Your task to perform on an android device: delete location history Image 0: 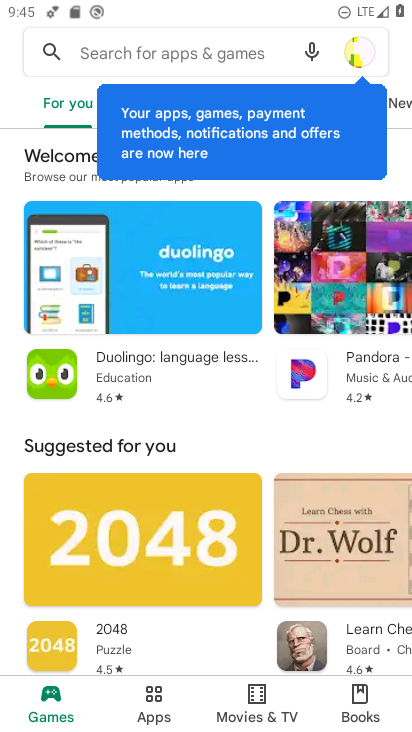
Step 0: press home button
Your task to perform on an android device: delete location history Image 1: 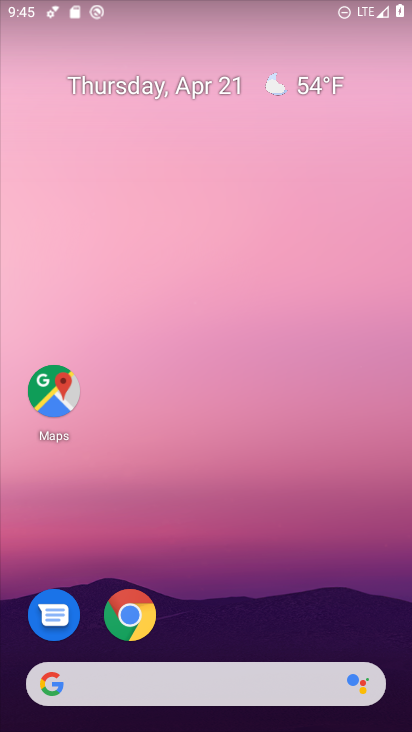
Step 1: click (55, 410)
Your task to perform on an android device: delete location history Image 2: 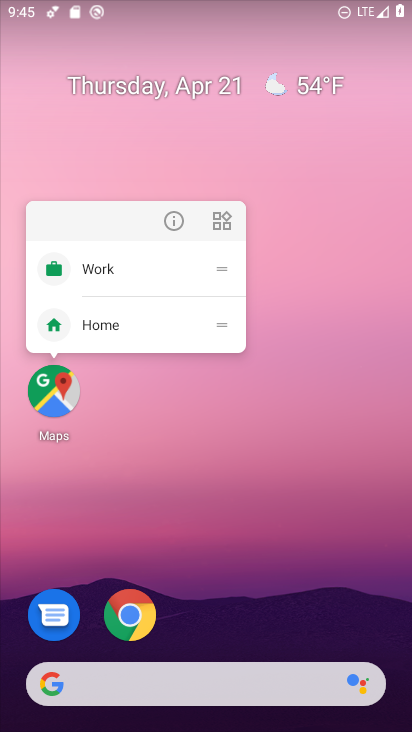
Step 2: click (58, 391)
Your task to perform on an android device: delete location history Image 3: 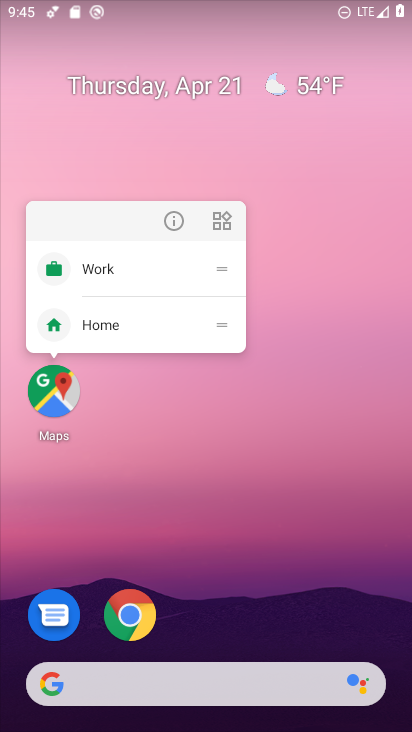
Step 3: click (60, 394)
Your task to perform on an android device: delete location history Image 4: 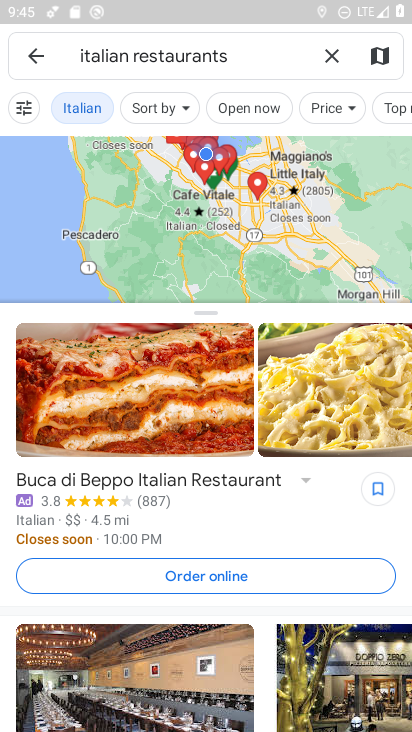
Step 4: click (39, 62)
Your task to perform on an android device: delete location history Image 5: 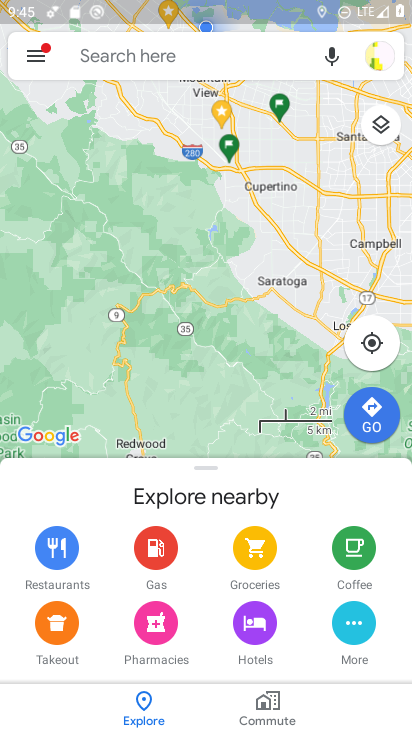
Step 5: click (27, 55)
Your task to perform on an android device: delete location history Image 6: 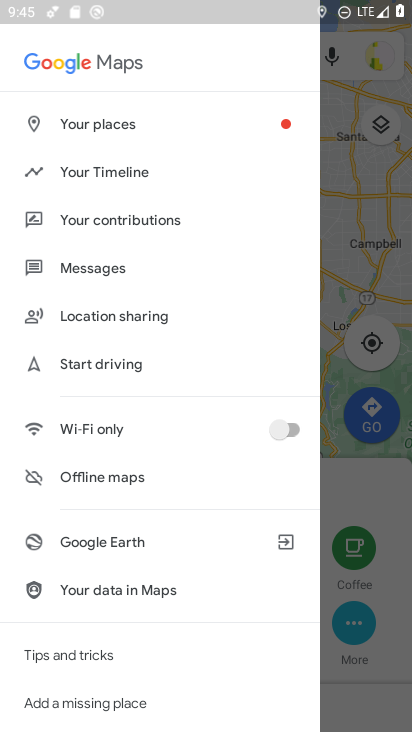
Step 6: click (85, 167)
Your task to perform on an android device: delete location history Image 7: 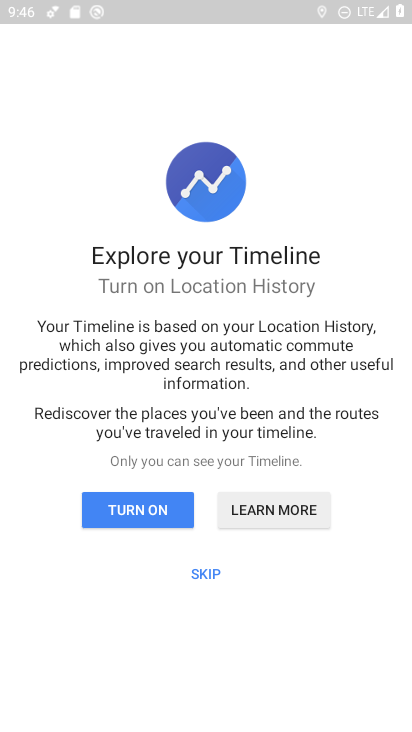
Step 7: click (197, 571)
Your task to perform on an android device: delete location history Image 8: 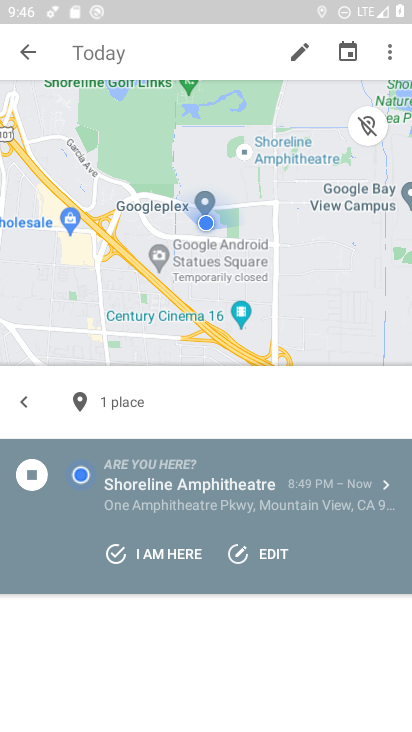
Step 8: click (396, 56)
Your task to perform on an android device: delete location history Image 9: 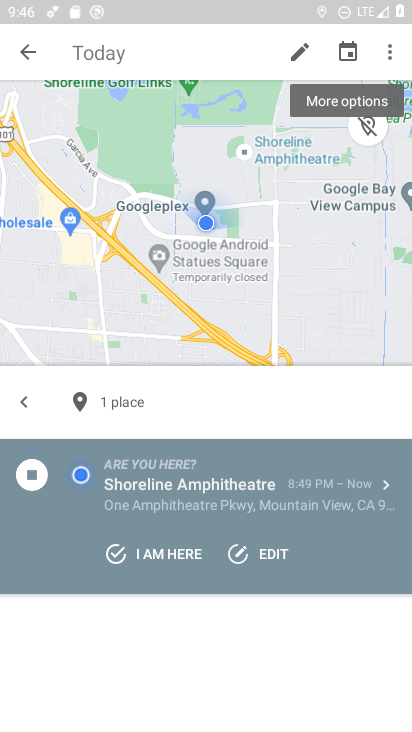
Step 9: click (396, 56)
Your task to perform on an android device: delete location history Image 10: 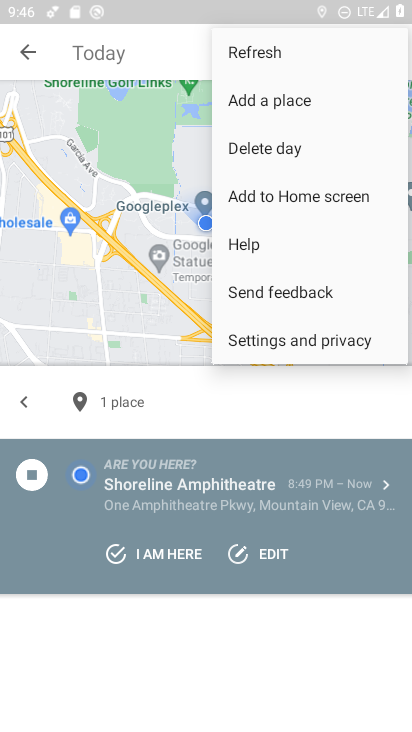
Step 10: click (304, 339)
Your task to perform on an android device: delete location history Image 11: 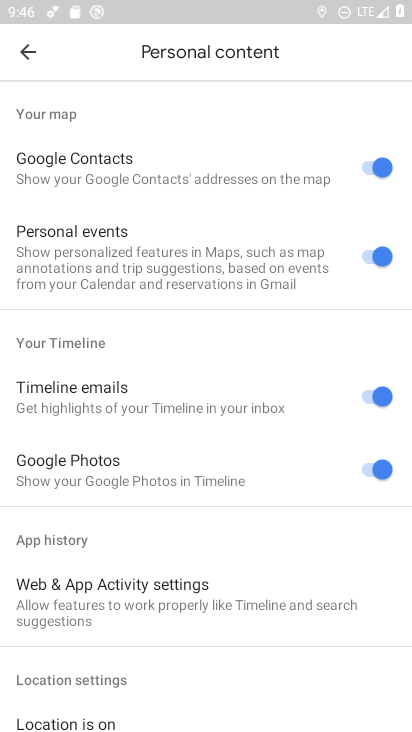
Step 11: drag from (132, 689) to (82, 251)
Your task to perform on an android device: delete location history Image 12: 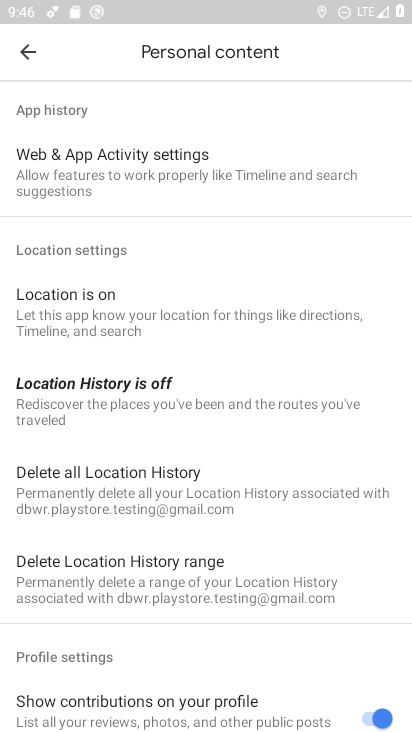
Step 12: click (81, 500)
Your task to perform on an android device: delete location history Image 13: 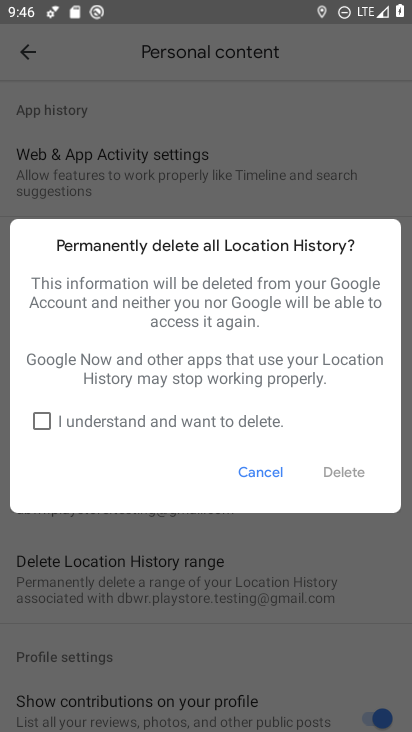
Step 13: click (32, 427)
Your task to perform on an android device: delete location history Image 14: 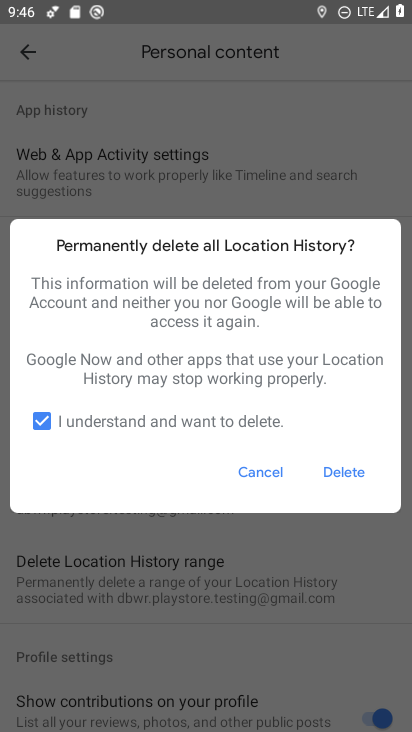
Step 14: click (342, 477)
Your task to perform on an android device: delete location history Image 15: 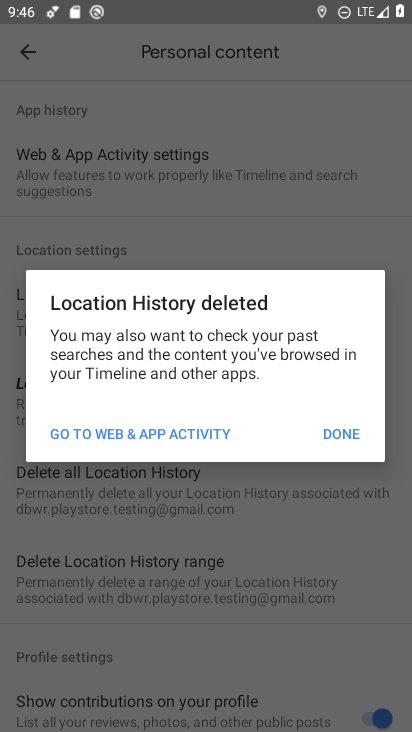
Step 15: click (334, 427)
Your task to perform on an android device: delete location history Image 16: 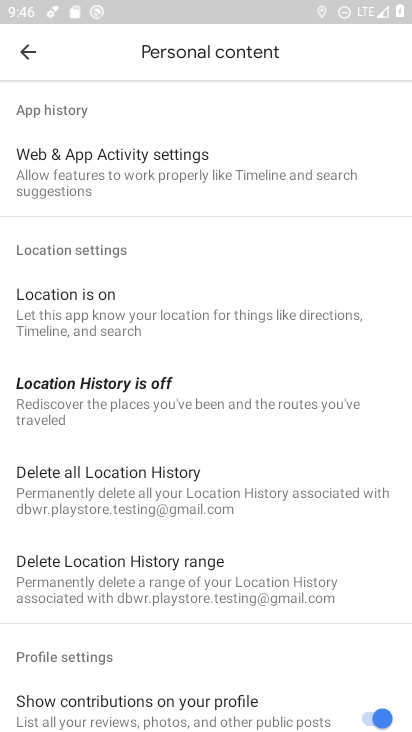
Step 16: task complete